Your task to perform on an android device: add a contact in the contacts app Image 0: 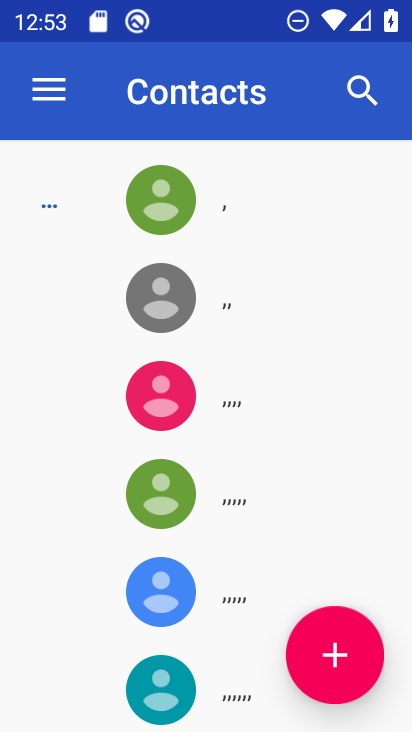
Step 0: click (333, 662)
Your task to perform on an android device: add a contact in the contacts app Image 1: 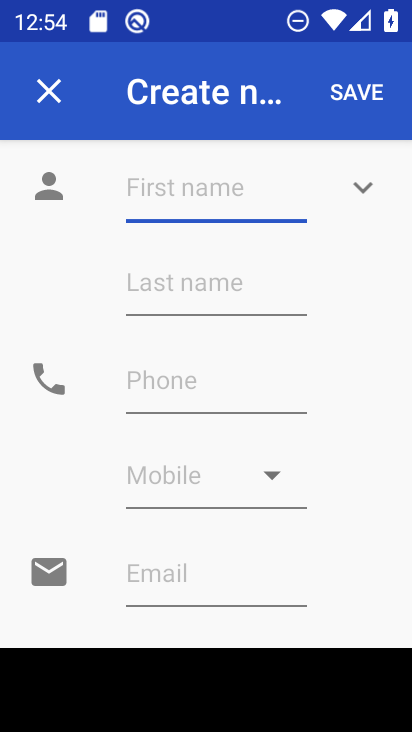
Step 1: type "hfhg"
Your task to perform on an android device: add a contact in the contacts app Image 2: 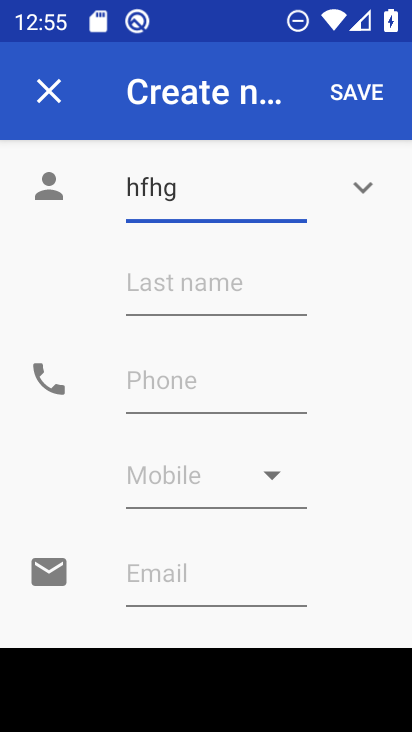
Step 2: click (224, 402)
Your task to perform on an android device: add a contact in the contacts app Image 3: 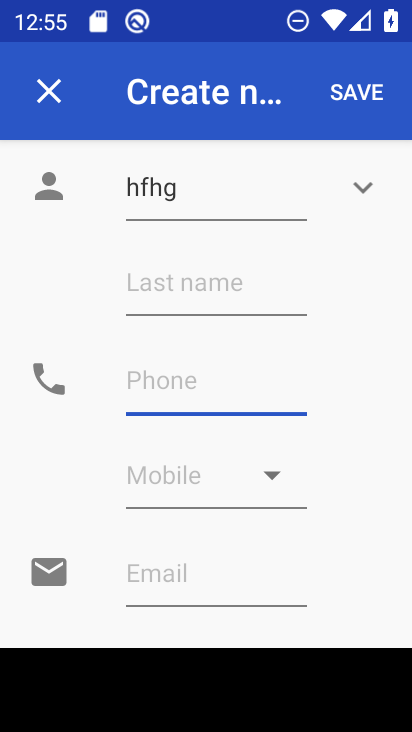
Step 3: type "68768879"
Your task to perform on an android device: add a contact in the contacts app Image 4: 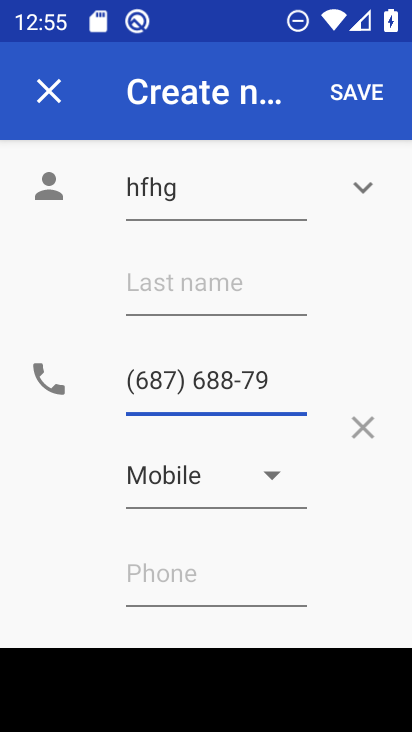
Step 4: click (374, 98)
Your task to perform on an android device: add a contact in the contacts app Image 5: 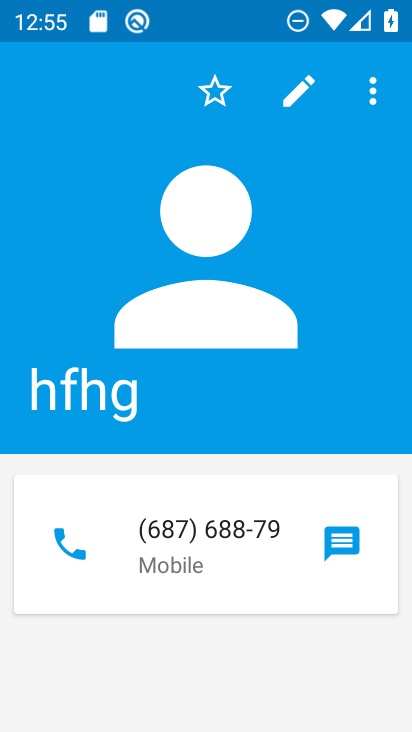
Step 5: task complete